Your task to perform on an android device: turn off airplane mode Image 0: 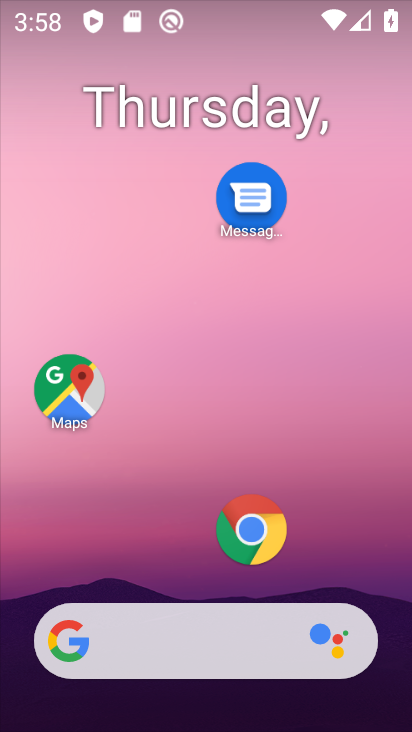
Step 0: drag from (136, 559) to (230, 11)
Your task to perform on an android device: turn off airplane mode Image 1: 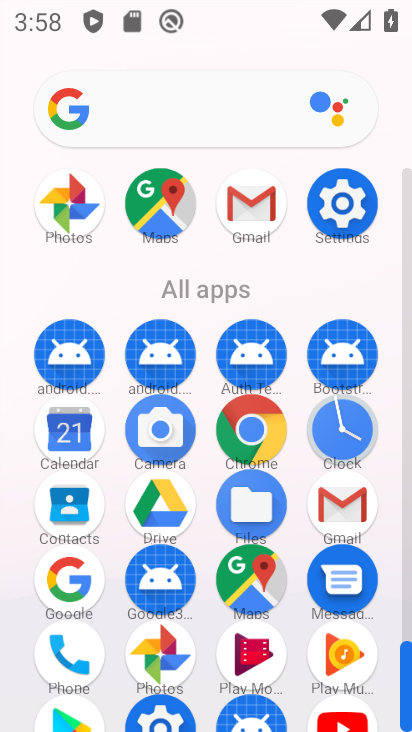
Step 1: click (345, 197)
Your task to perform on an android device: turn off airplane mode Image 2: 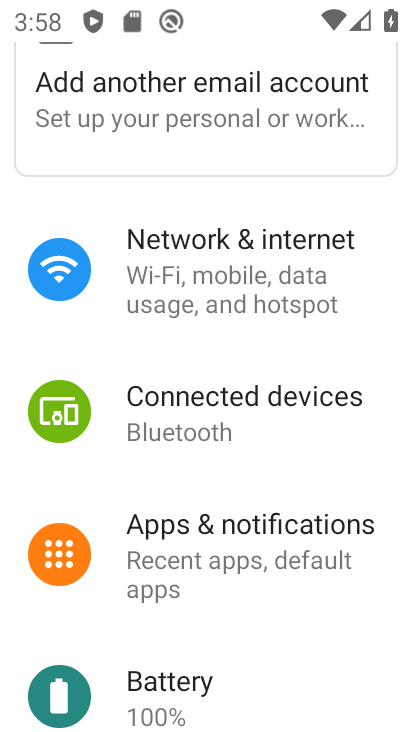
Step 2: click (269, 289)
Your task to perform on an android device: turn off airplane mode Image 3: 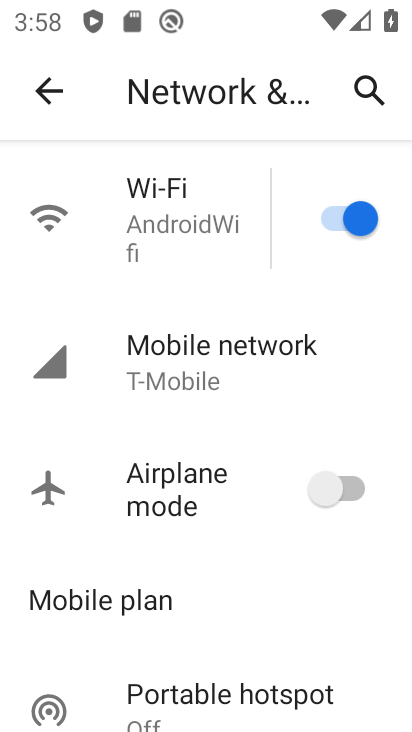
Step 3: task complete